Your task to perform on an android device: Open Google Maps and go to "Timeline" Image 0: 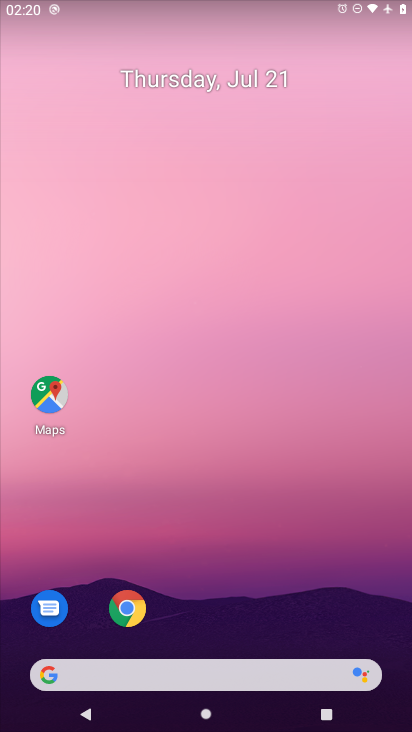
Step 0: drag from (241, 627) to (252, 1)
Your task to perform on an android device: Open Google Maps and go to "Timeline" Image 1: 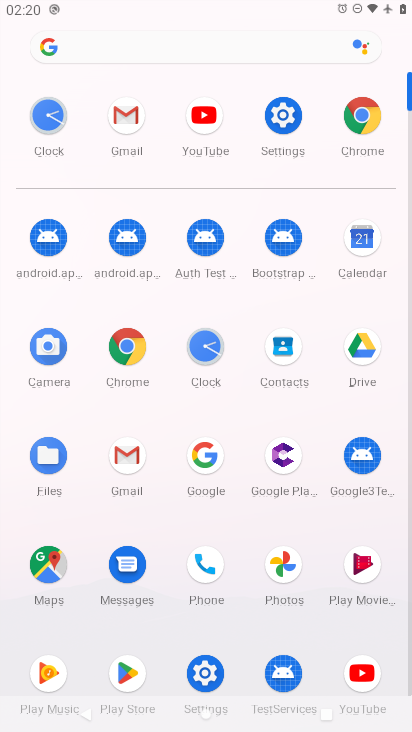
Step 1: click (57, 565)
Your task to perform on an android device: Open Google Maps and go to "Timeline" Image 2: 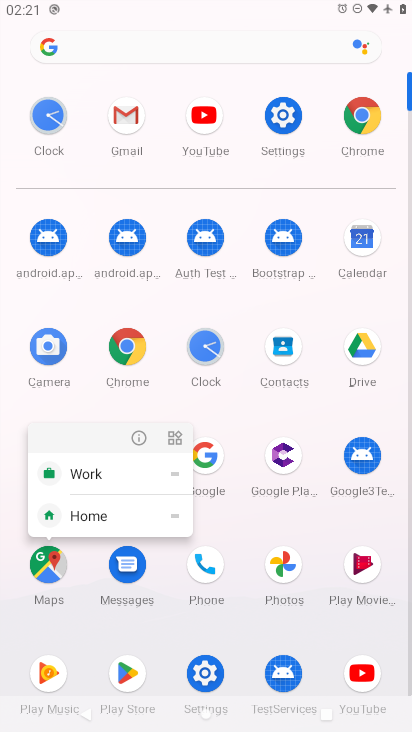
Step 2: click (43, 578)
Your task to perform on an android device: Open Google Maps and go to "Timeline" Image 3: 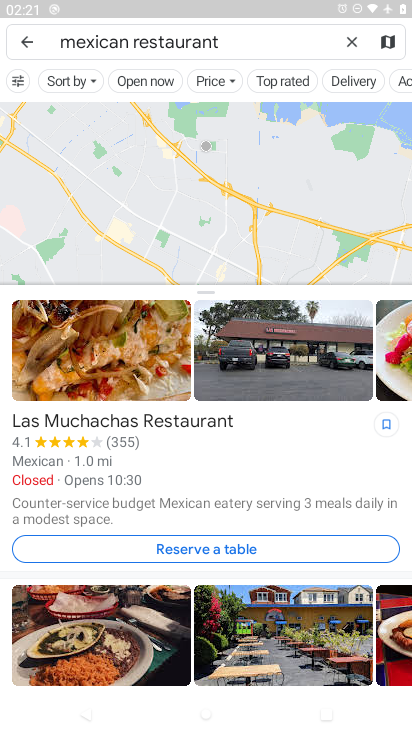
Step 3: click (23, 44)
Your task to perform on an android device: Open Google Maps and go to "Timeline" Image 4: 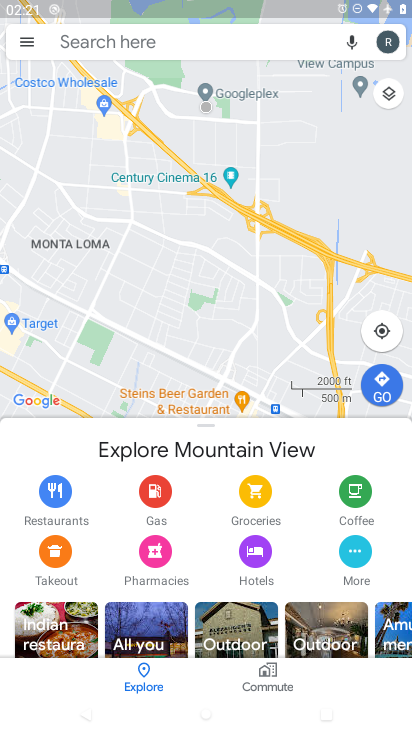
Step 4: click (23, 44)
Your task to perform on an android device: Open Google Maps and go to "Timeline" Image 5: 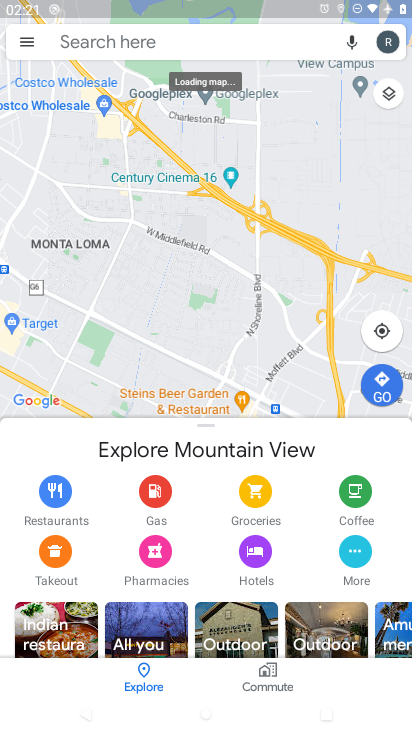
Step 5: click (22, 39)
Your task to perform on an android device: Open Google Maps and go to "Timeline" Image 6: 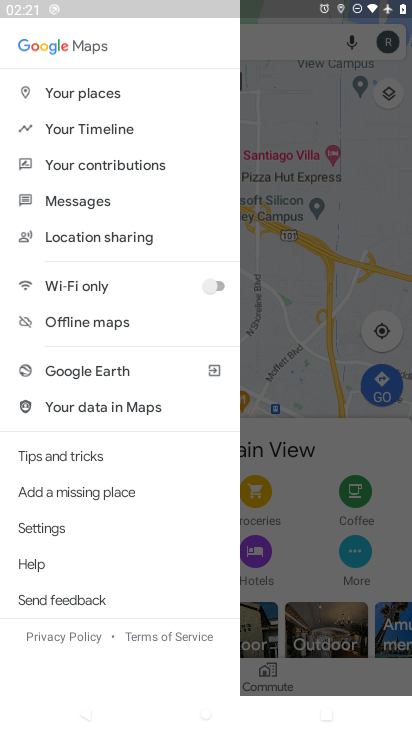
Step 6: click (68, 135)
Your task to perform on an android device: Open Google Maps and go to "Timeline" Image 7: 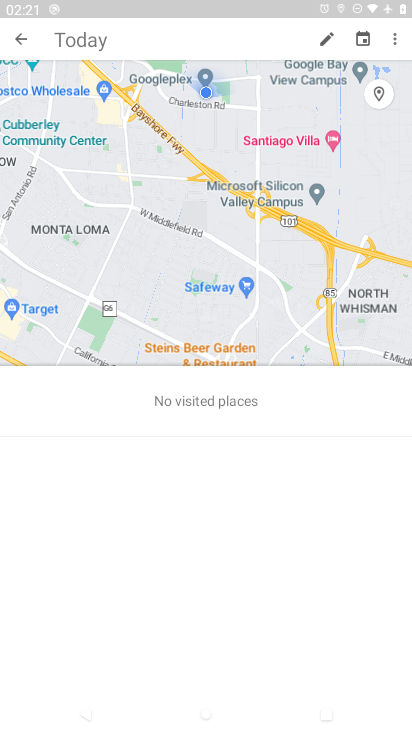
Step 7: task complete